Your task to perform on an android device: Search for sushi restaurants on Maps Image 0: 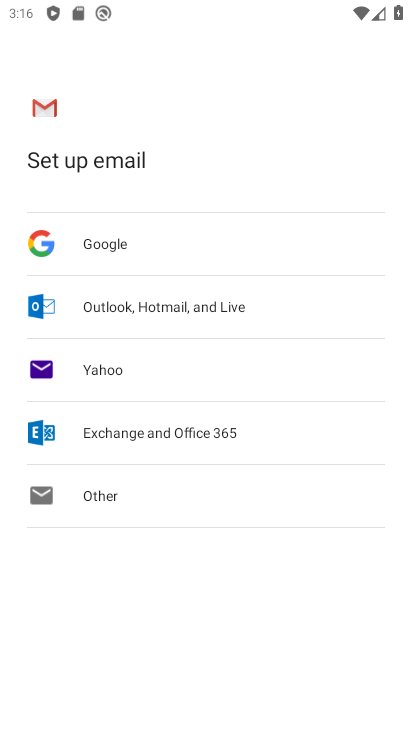
Step 0: press home button
Your task to perform on an android device: Search for sushi restaurants on Maps Image 1: 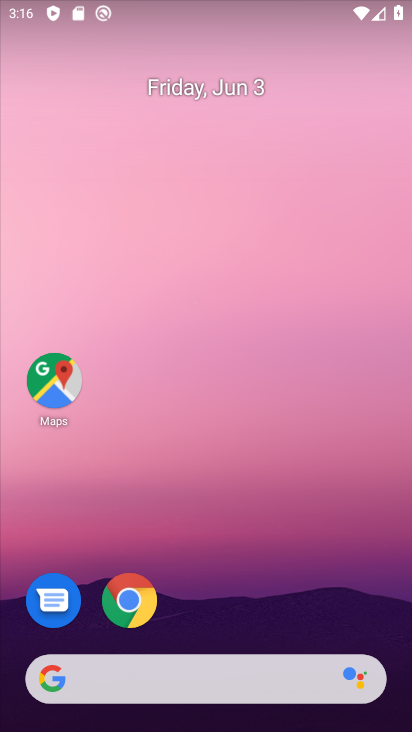
Step 1: click (61, 377)
Your task to perform on an android device: Search for sushi restaurants on Maps Image 2: 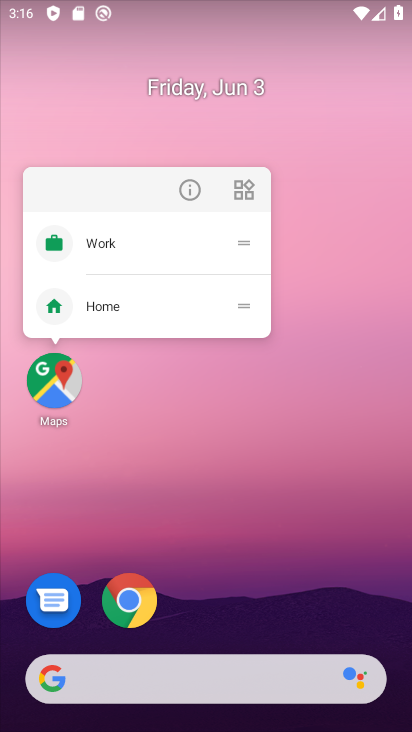
Step 2: click (61, 377)
Your task to perform on an android device: Search for sushi restaurants on Maps Image 3: 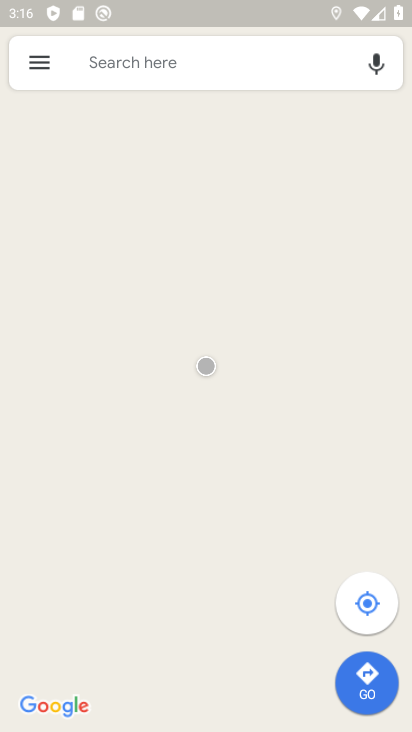
Step 3: click (133, 78)
Your task to perform on an android device: Search for sushi restaurants on Maps Image 4: 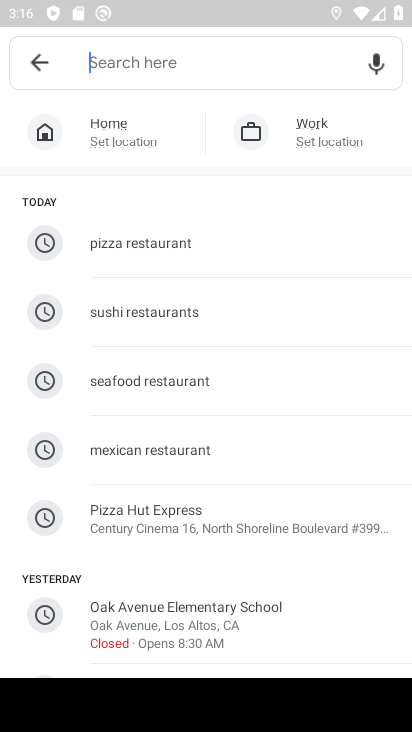
Step 4: type "sushi restaurants"
Your task to perform on an android device: Search for sushi restaurants on Maps Image 5: 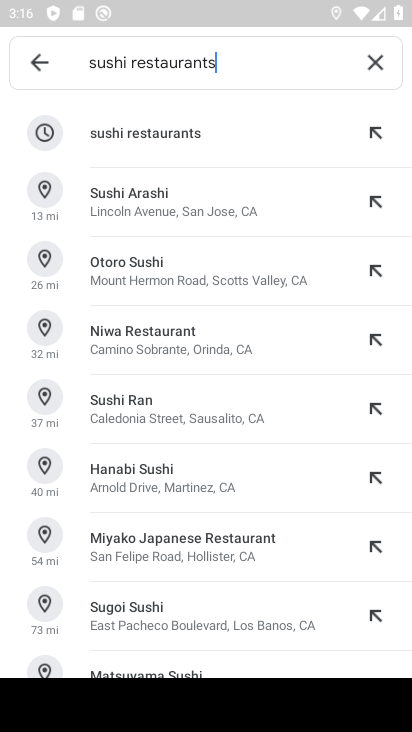
Step 5: click (197, 130)
Your task to perform on an android device: Search for sushi restaurants on Maps Image 6: 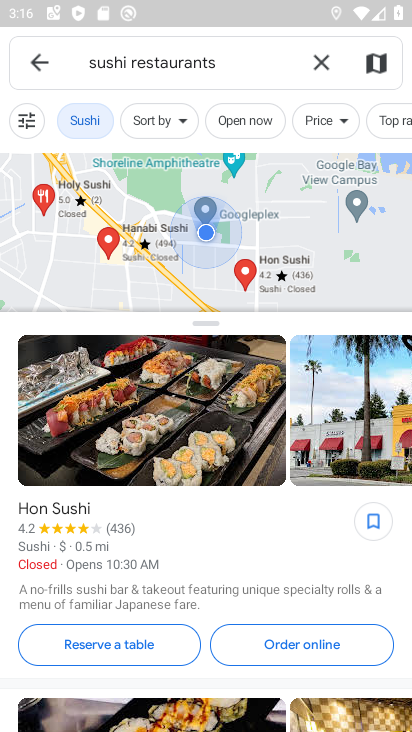
Step 6: task complete